Your task to perform on an android device: all mails in gmail Image 0: 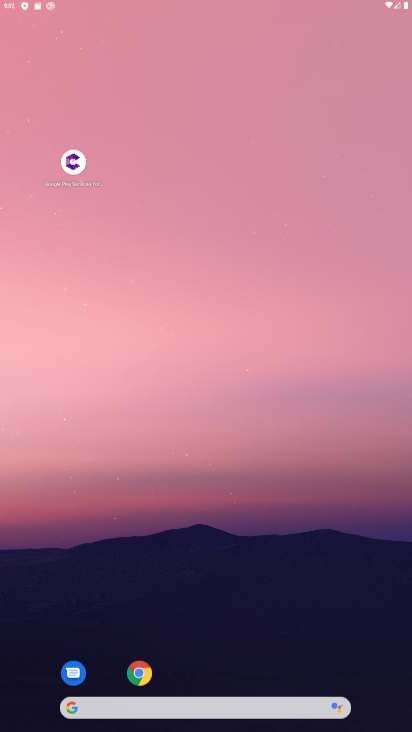
Step 0: press home button
Your task to perform on an android device: all mails in gmail Image 1: 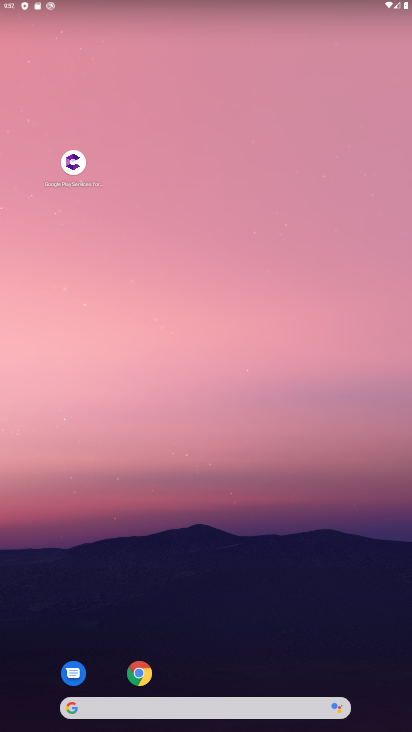
Step 1: drag from (337, 594) to (330, 51)
Your task to perform on an android device: all mails in gmail Image 2: 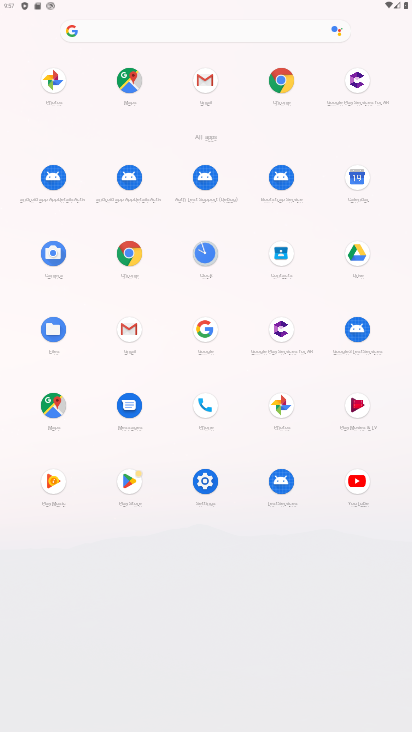
Step 2: click (127, 323)
Your task to perform on an android device: all mails in gmail Image 3: 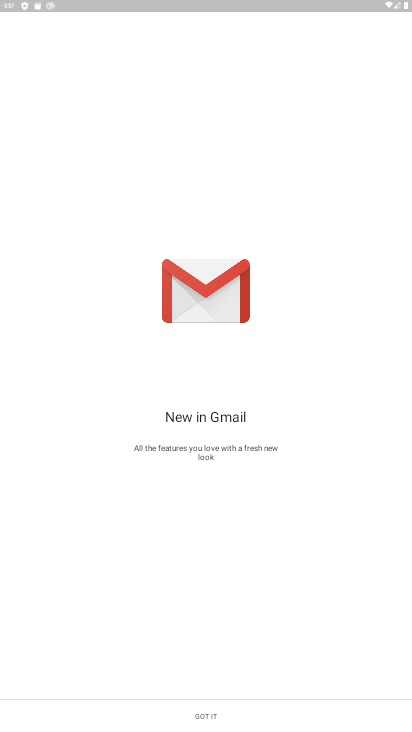
Step 3: click (222, 721)
Your task to perform on an android device: all mails in gmail Image 4: 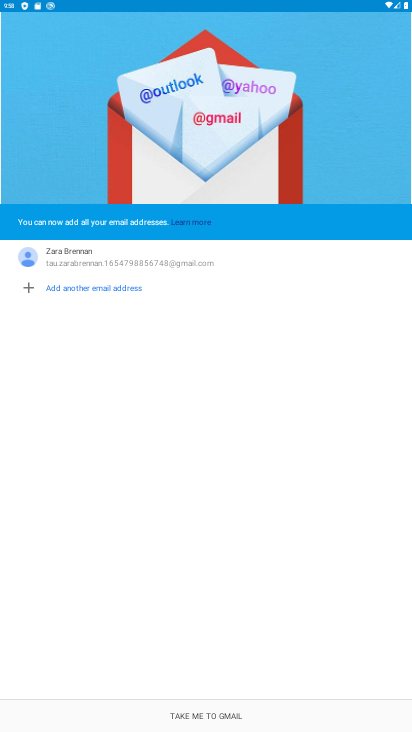
Step 4: click (222, 721)
Your task to perform on an android device: all mails in gmail Image 5: 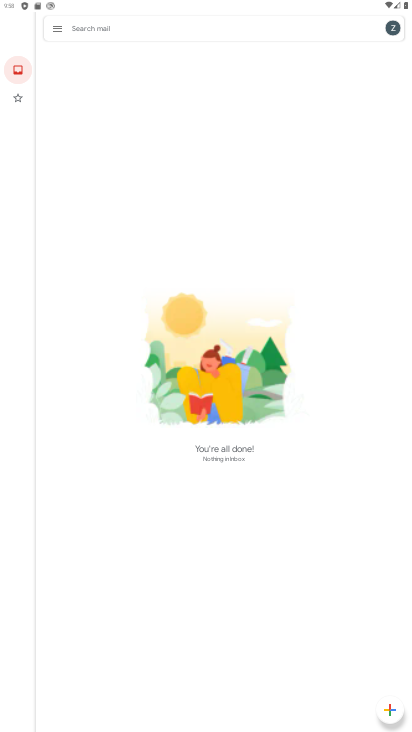
Step 5: click (56, 29)
Your task to perform on an android device: all mails in gmail Image 6: 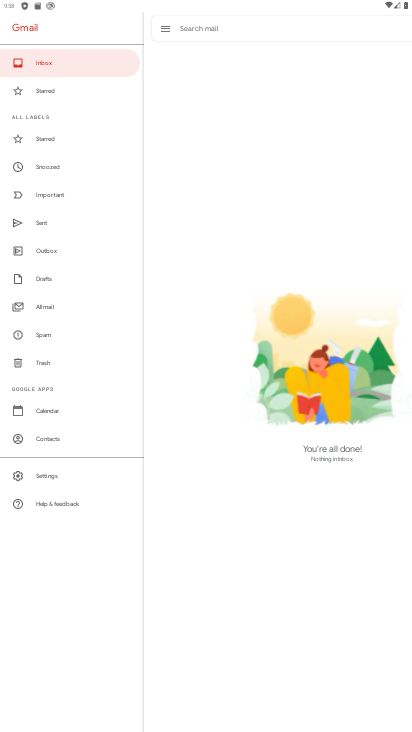
Step 6: click (48, 308)
Your task to perform on an android device: all mails in gmail Image 7: 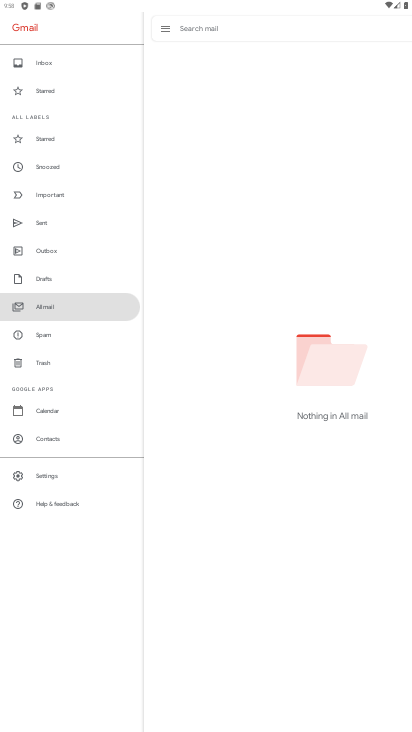
Step 7: task complete